Your task to perform on an android device: toggle translation in the chrome app Image 0: 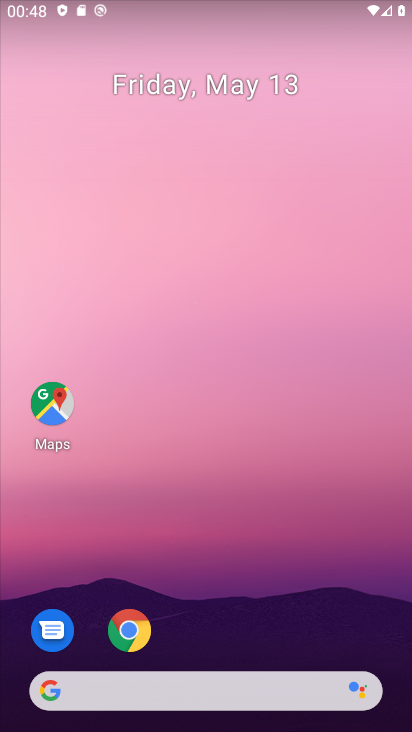
Step 0: press home button
Your task to perform on an android device: toggle translation in the chrome app Image 1: 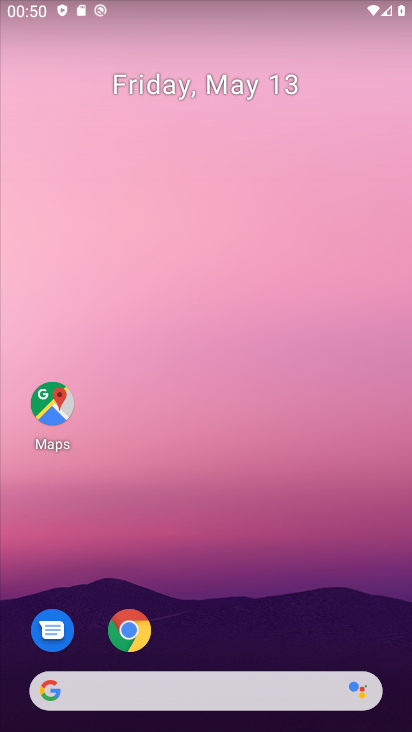
Step 1: drag from (301, 716) to (287, 223)
Your task to perform on an android device: toggle translation in the chrome app Image 2: 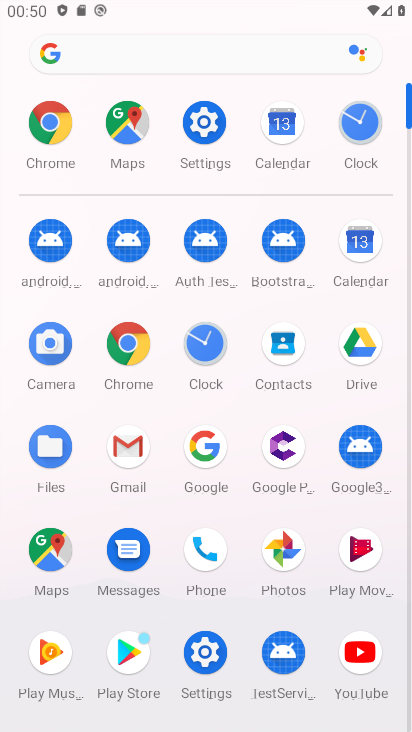
Step 2: click (131, 348)
Your task to perform on an android device: toggle translation in the chrome app Image 3: 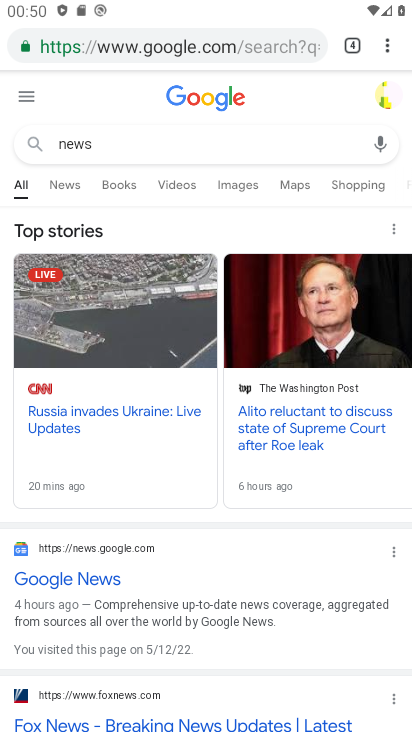
Step 3: click (385, 51)
Your task to perform on an android device: toggle translation in the chrome app Image 4: 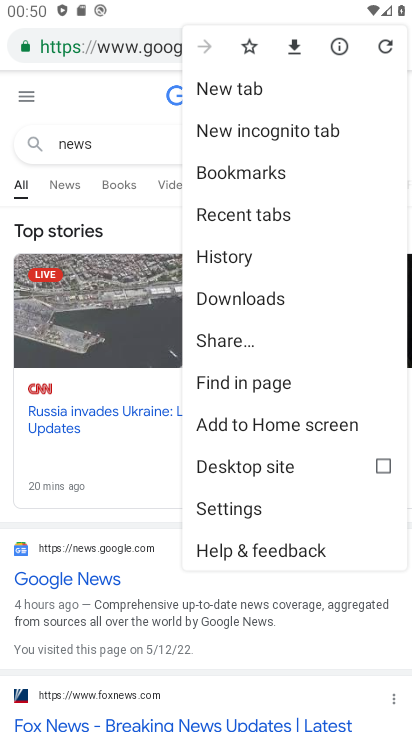
Step 4: click (238, 508)
Your task to perform on an android device: toggle translation in the chrome app Image 5: 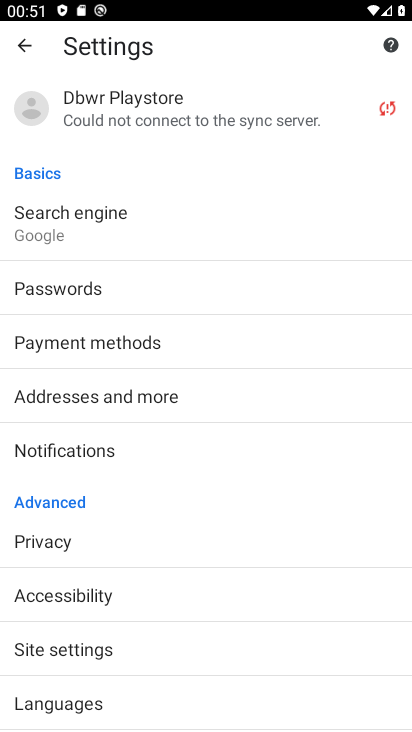
Step 5: click (62, 701)
Your task to perform on an android device: toggle translation in the chrome app Image 6: 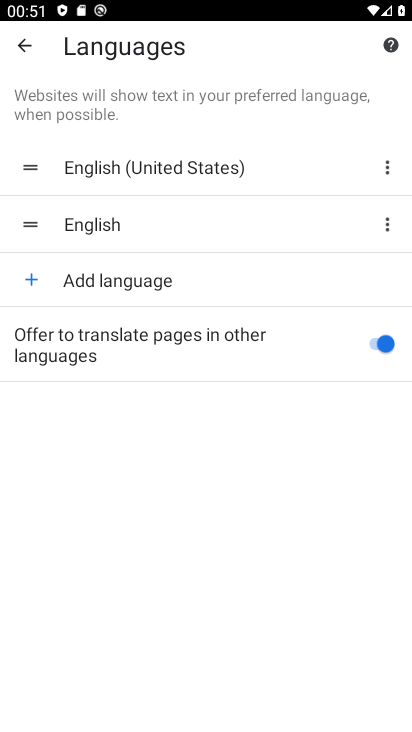
Step 6: task complete